Your task to perform on an android device: Open Google Chrome and open the bookmarks view Image 0: 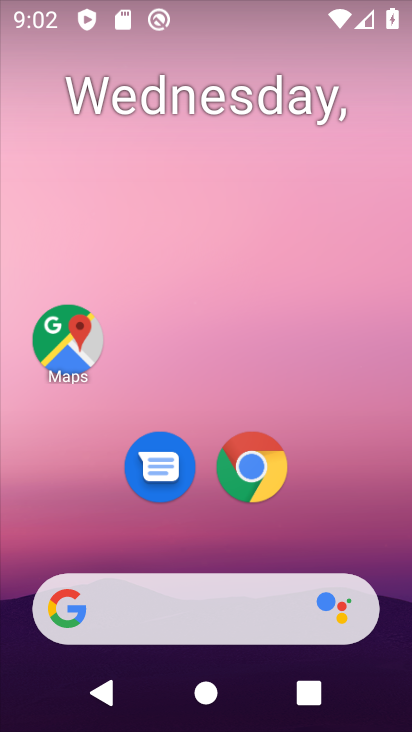
Step 0: drag from (345, 520) to (303, 78)
Your task to perform on an android device: Open Google Chrome and open the bookmarks view Image 1: 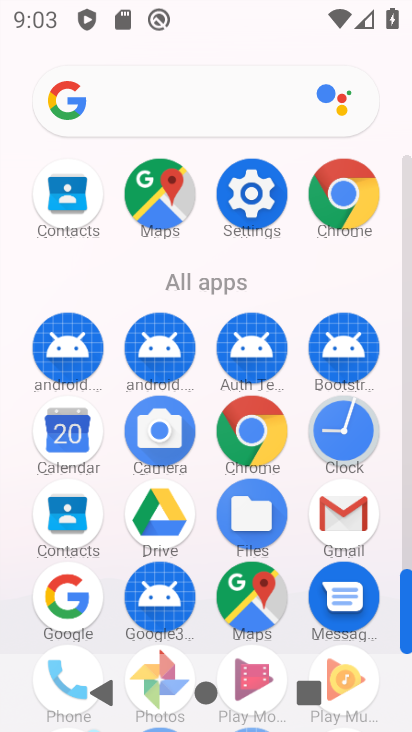
Step 1: click (260, 434)
Your task to perform on an android device: Open Google Chrome and open the bookmarks view Image 2: 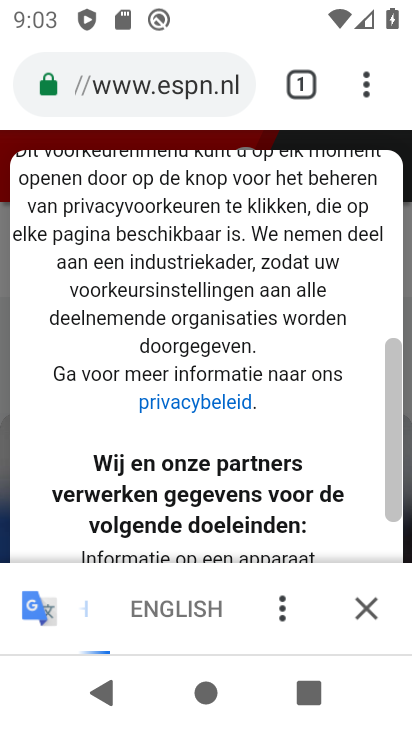
Step 2: task complete